Your task to perform on an android device: visit the assistant section in the google photos Image 0: 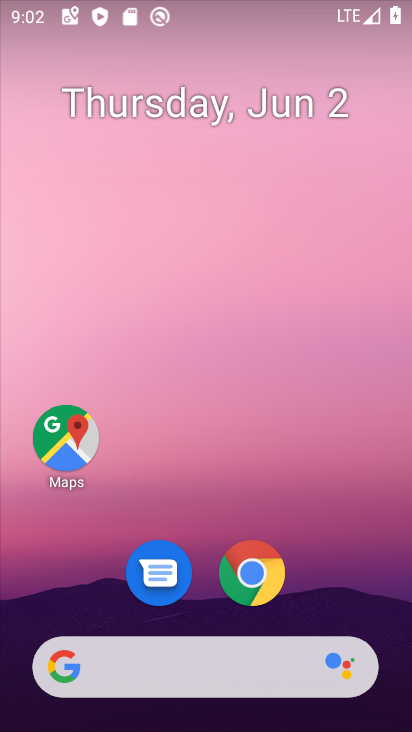
Step 0: press home button
Your task to perform on an android device: visit the assistant section in the google photos Image 1: 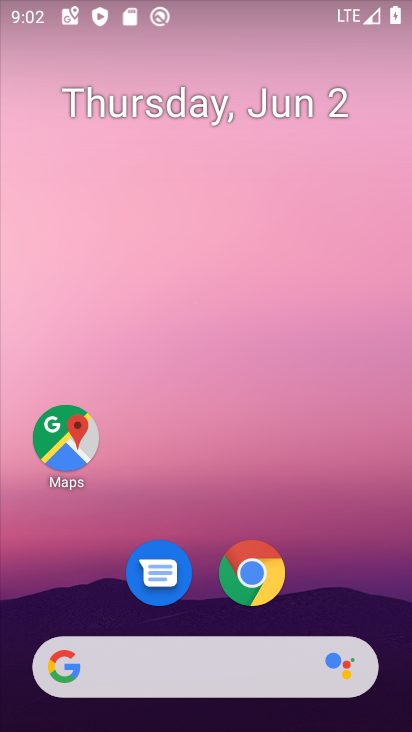
Step 1: drag from (383, 590) to (364, 0)
Your task to perform on an android device: visit the assistant section in the google photos Image 2: 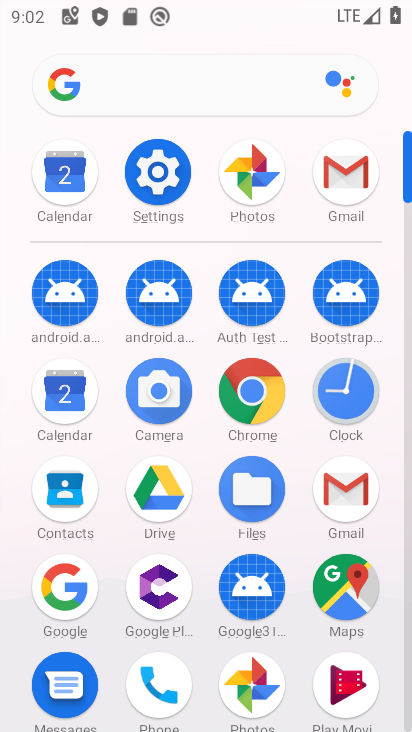
Step 2: click (246, 672)
Your task to perform on an android device: visit the assistant section in the google photos Image 3: 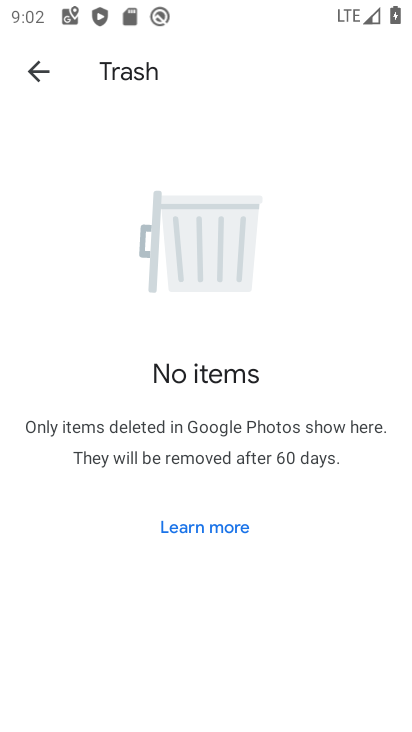
Step 3: click (46, 49)
Your task to perform on an android device: visit the assistant section in the google photos Image 4: 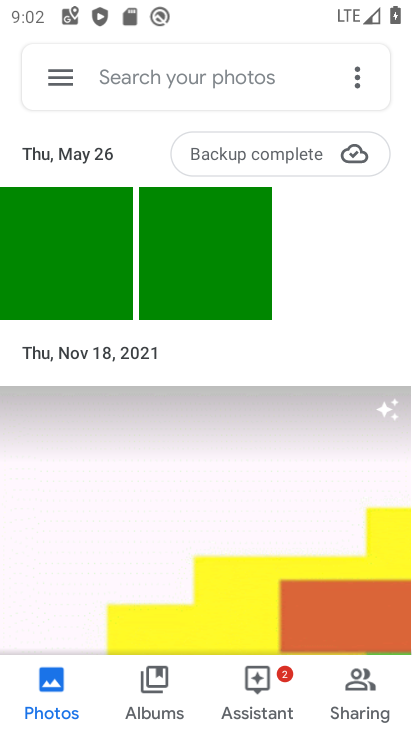
Step 4: click (287, 699)
Your task to perform on an android device: visit the assistant section in the google photos Image 5: 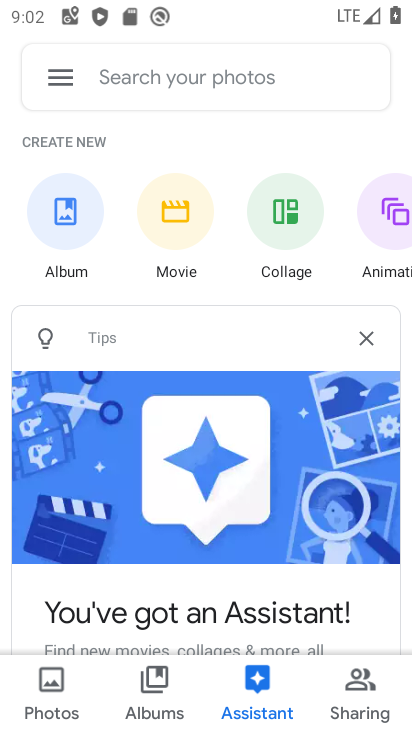
Step 5: task complete